Your task to perform on an android device: turn on location history Image 0: 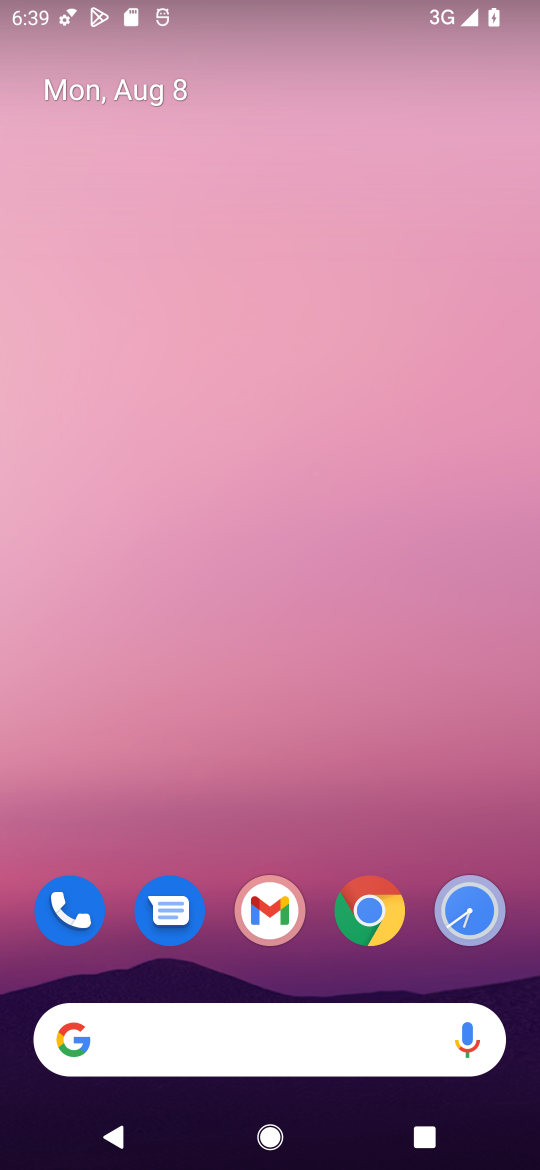
Step 0: drag from (343, 768) to (279, 6)
Your task to perform on an android device: turn on location history Image 1: 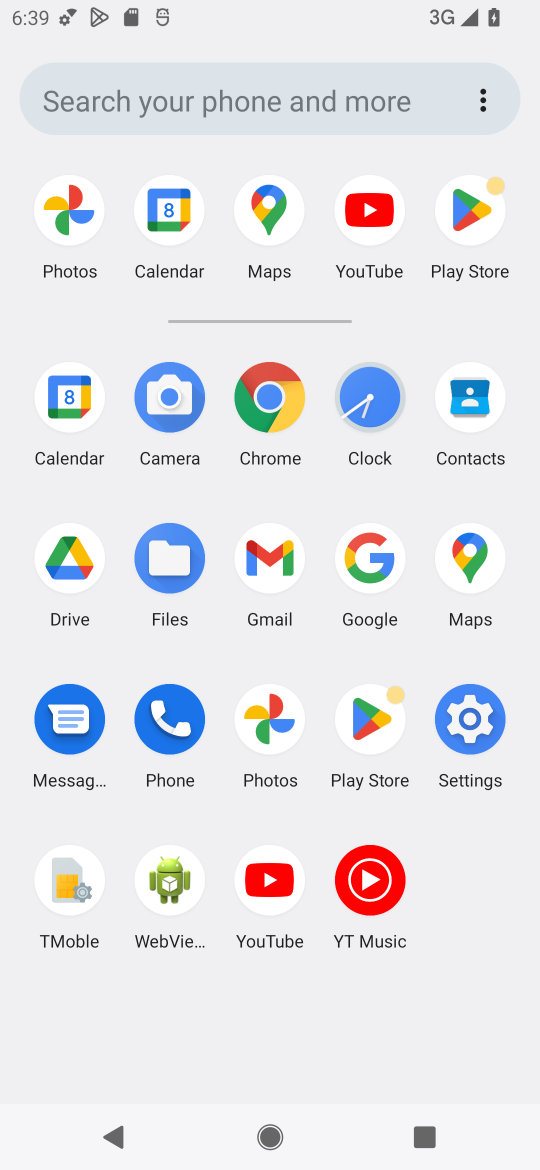
Step 1: click (474, 740)
Your task to perform on an android device: turn on location history Image 2: 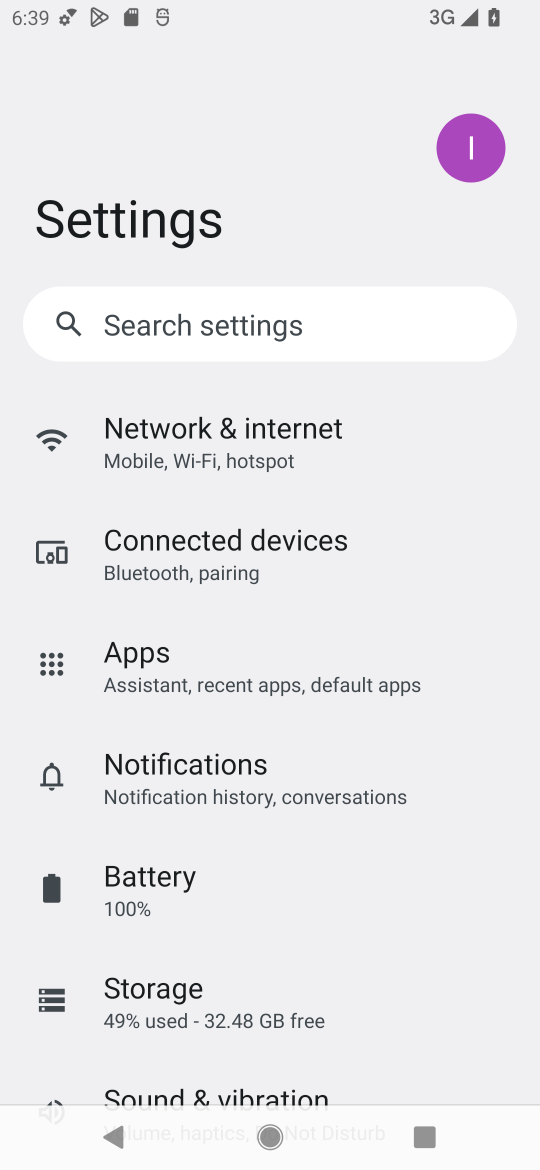
Step 2: drag from (449, 880) to (266, 98)
Your task to perform on an android device: turn on location history Image 3: 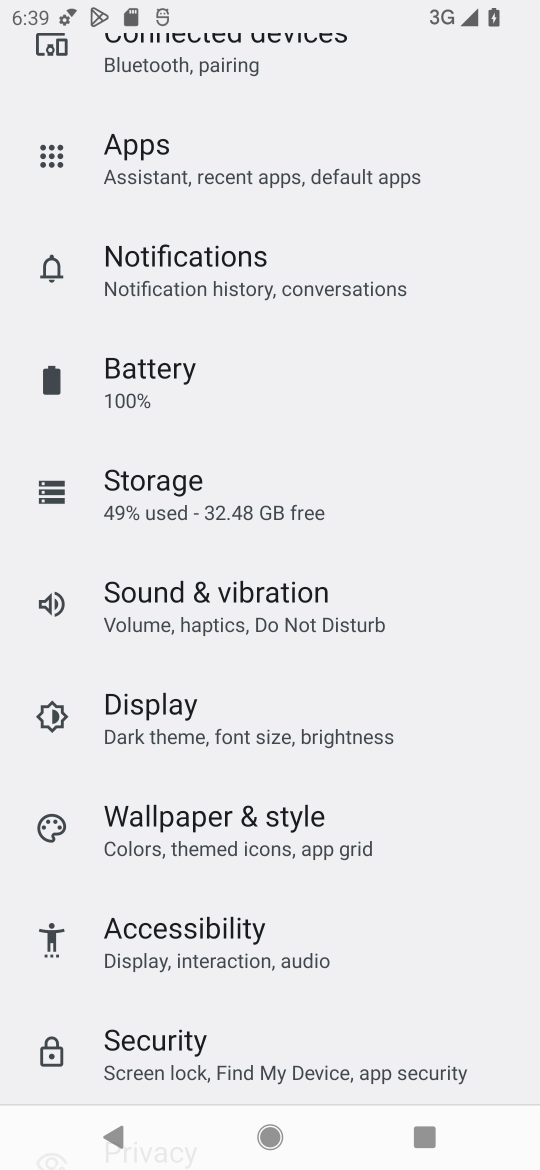
Step 3: drag from (366, 947) to (255, 328)
Your task to perform on an android device: turn on location history Image 4: 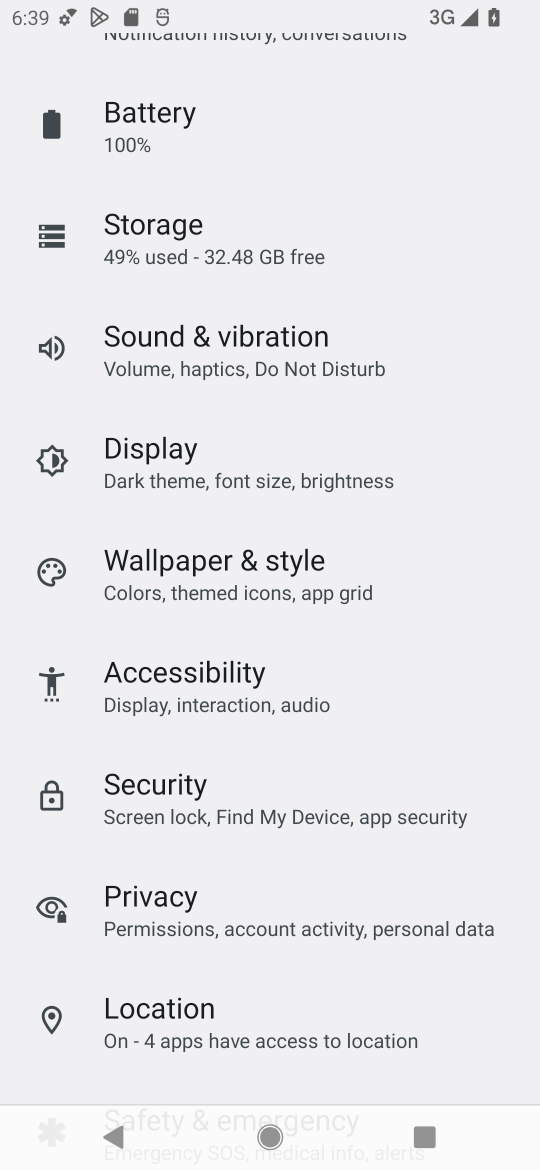
Step 4: click (178, 1019)
Your task to perform on an android device: turn on location history Image 5: 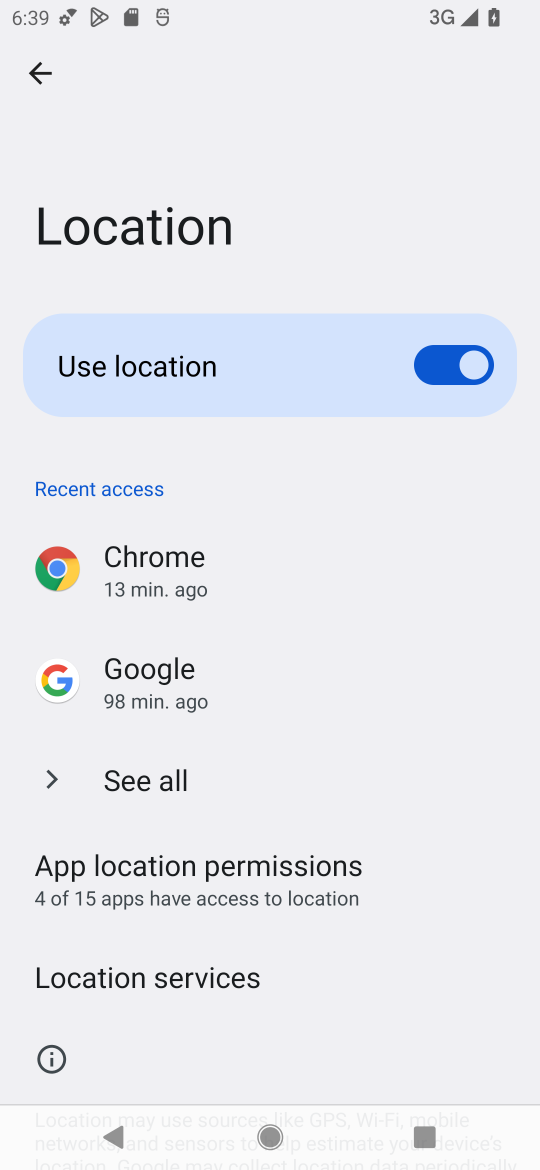
Step 5: drag from (324, 951) to (227, 539)
Your task to perform on an android device: turn on location history Image 6: 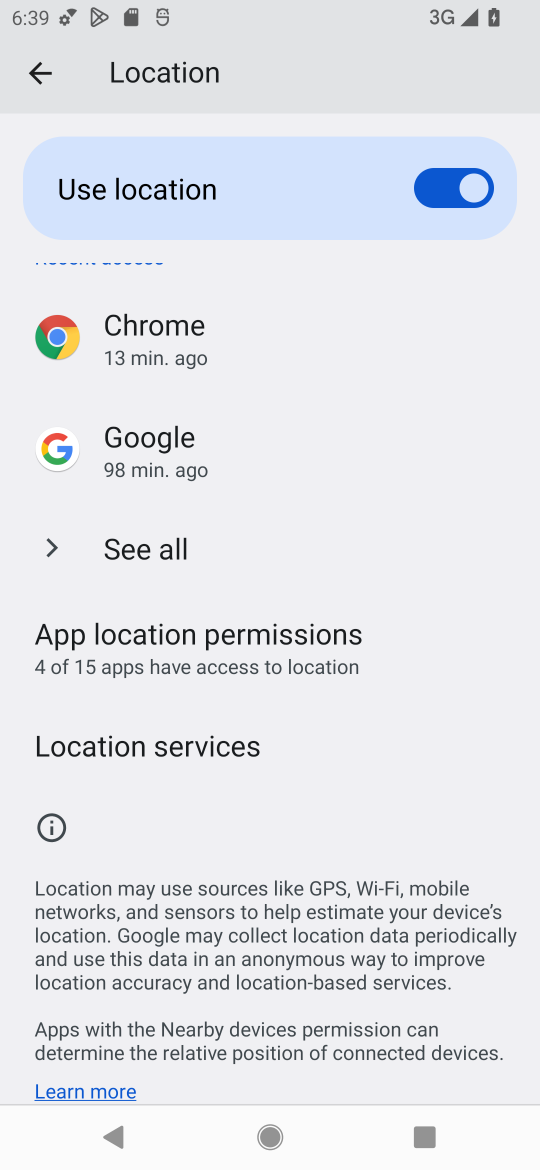
Step 6: click (90, 750)
Your task to perform on an android device: turn on location history Image 7: 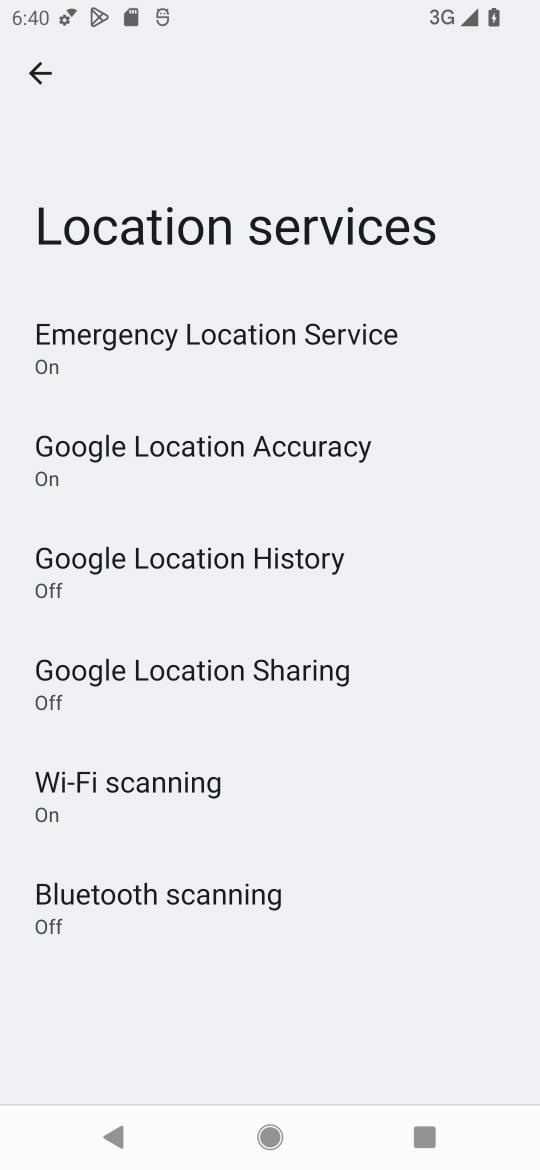
Step 7: click (177, 575)
Your task to perform on an android device: turn on location history Image 8: 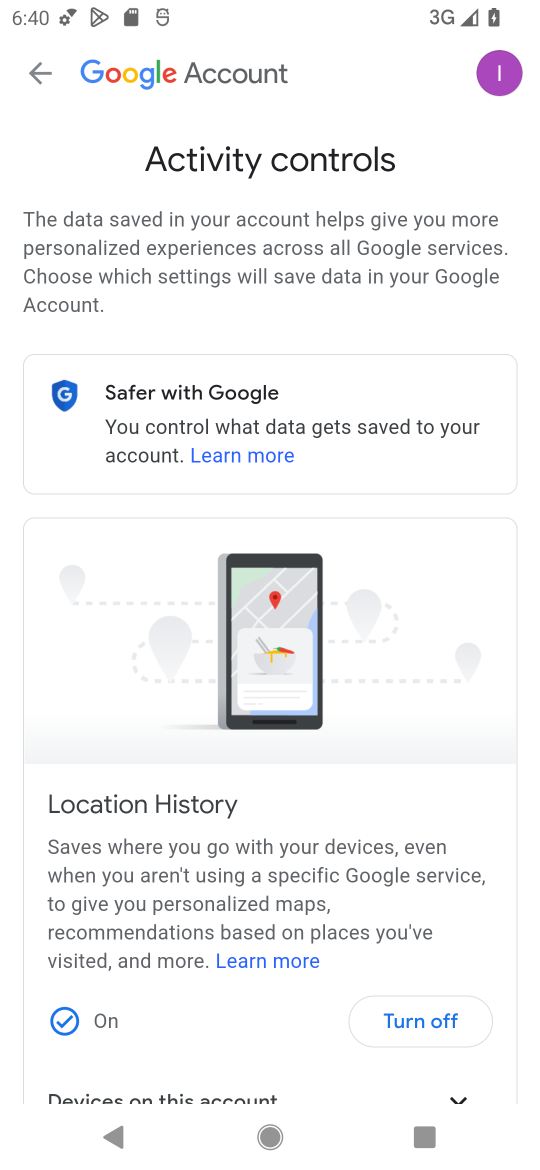
Step 8: click (418, 1027)
Your task to perform on an android device: turn on location history Image 9: 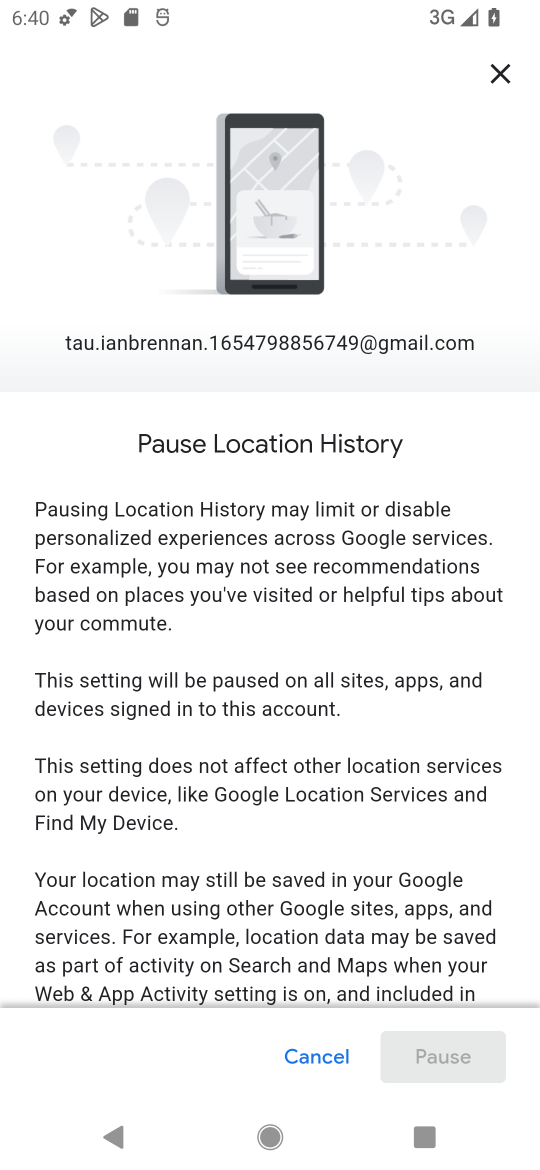
Step 9: drag from (352, 731) to (169, 56)
Your task to perform on an android device: turn on location history Image 10: 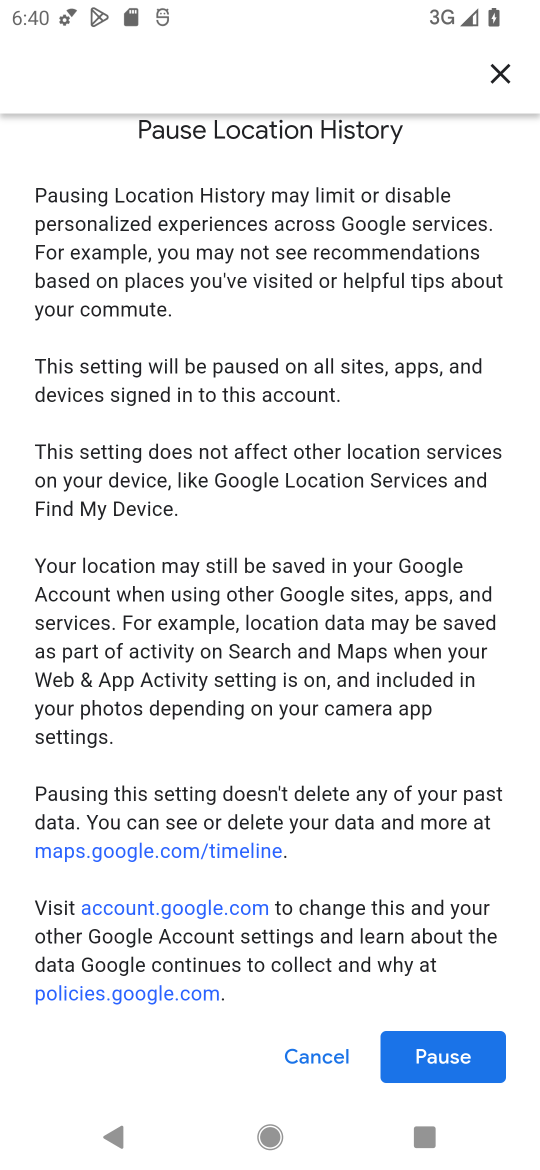
Step 10: click (313, 1062)
Your task to perform on an android device: turn on location history Image 11: 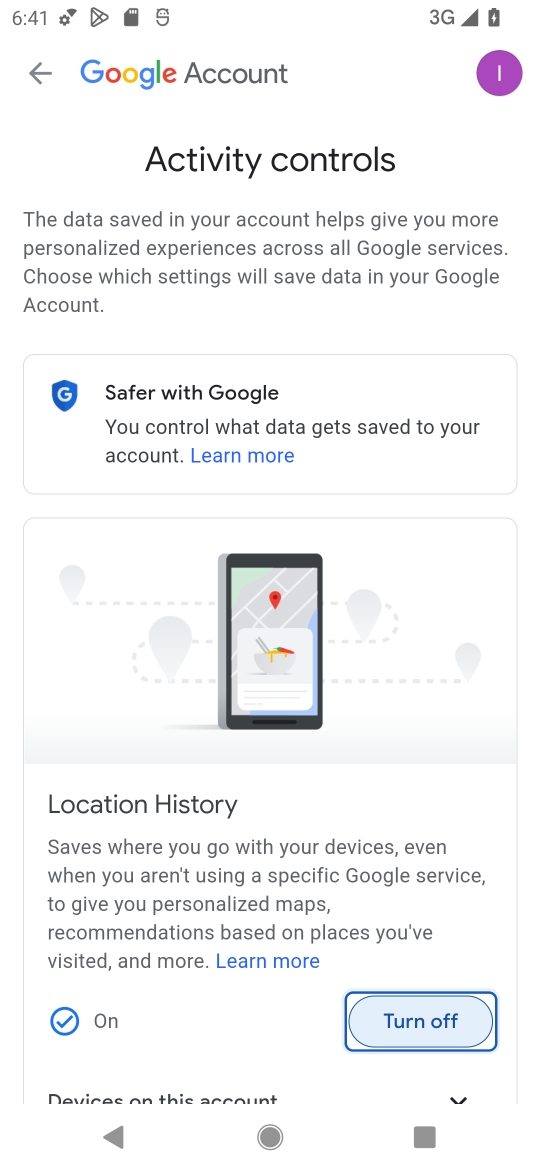
Step 11: task complete